Your task to perform on an android device: Search for Mexican restaurants on Maps Image 0: 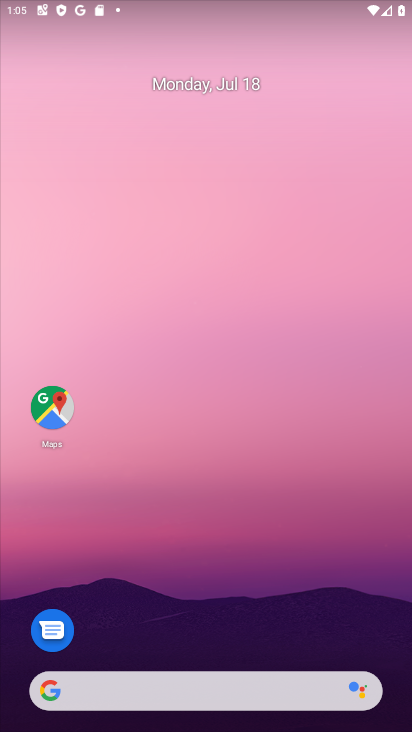
Step 0: drag from (333, 635) to (357, 6)
Your task to perform on an android device: Search for Mexican restaurants on Maps Image 1: 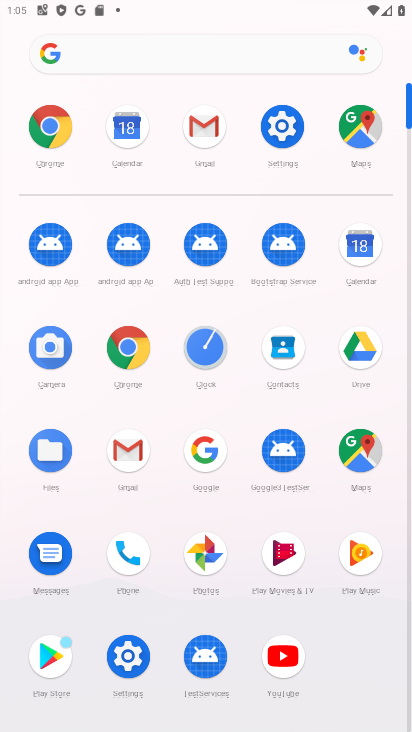
Step 1: click (370, 459)
Your task to perform on an android device: Search for Mexican restaurants on Maps Image 2: 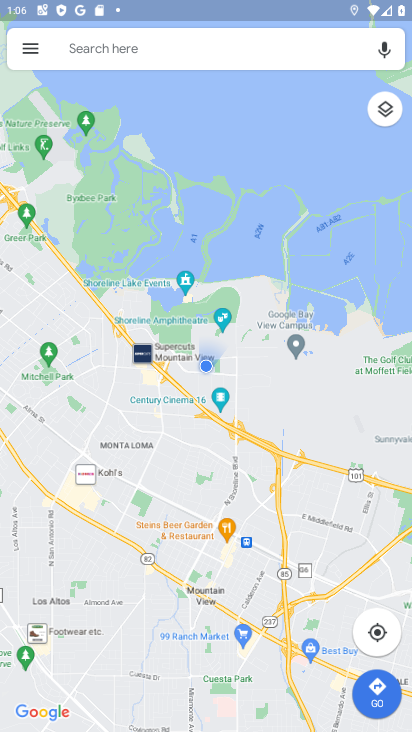
Step 2: click (145, 35)
Your task to perform on an android device: Search for Mexican restaurants on Maps Image 3: 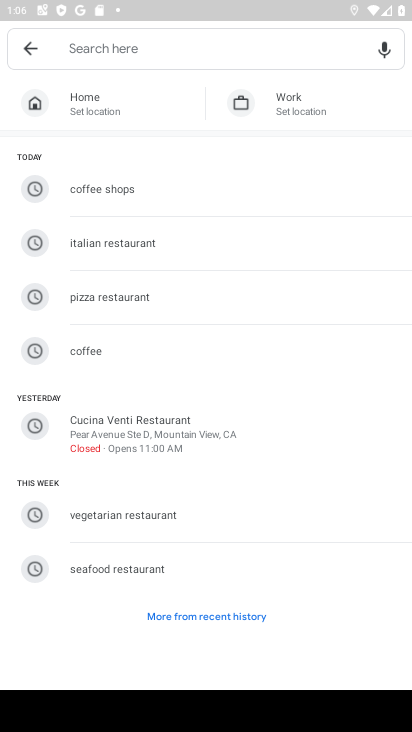
Step 3: type "mexican restaurant"
Your task to perform on an android device: Search for Mexican restaurants on Maps Image 4: 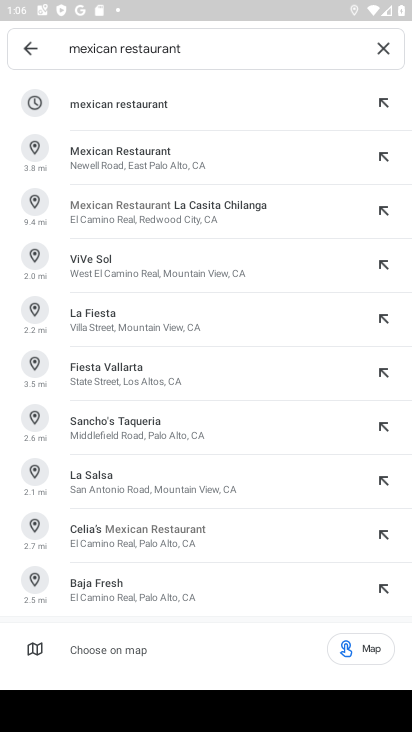
Step 4: click (145, 116)
Your task to perform on an android device: Search for Mexican restaurants on Maps Image 5: 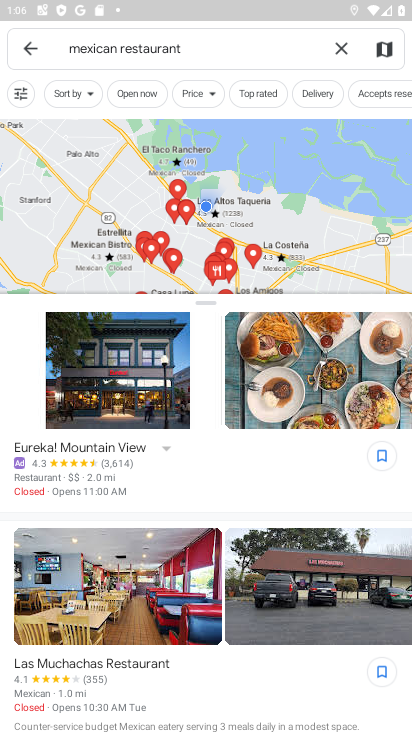
Step 5: task complete